Your task to perform on an android device: What's the weather? Image 0: 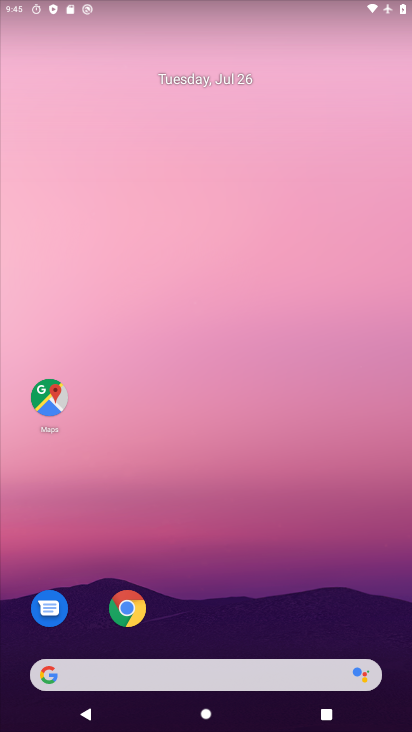
Step 0: drag from (203, 605) to (181, 24)
Your task to perform on an android device: What's the weather? Image 1: 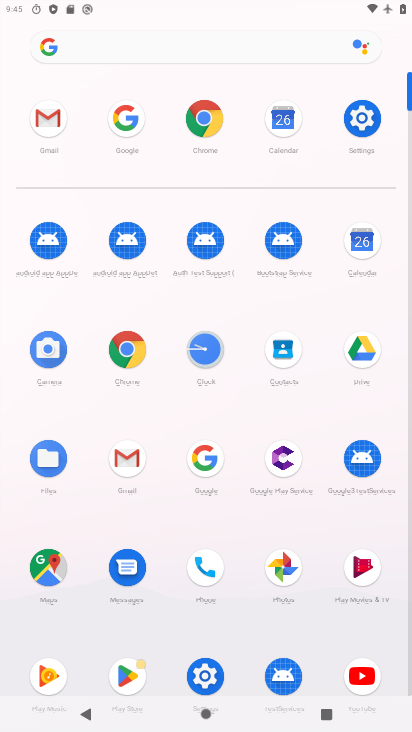
Step 1: click (199, 459)
Your task to perform on an android device: What's the weather? Image 2: 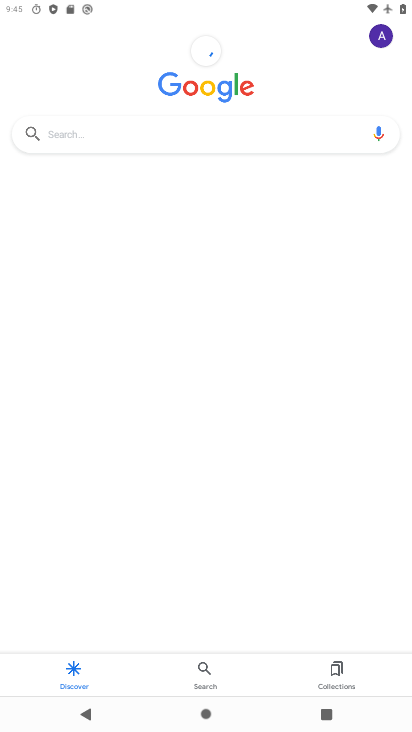
Step 2: click (134, 130)
Your task to perform on an android device: What's the weather? Image 3: 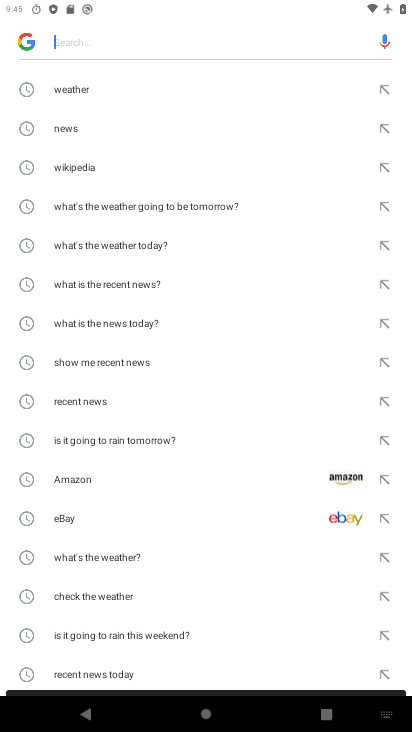
Step 3: click (123, 101)
Your task to perform on an android device: What's the weather? Image 4: 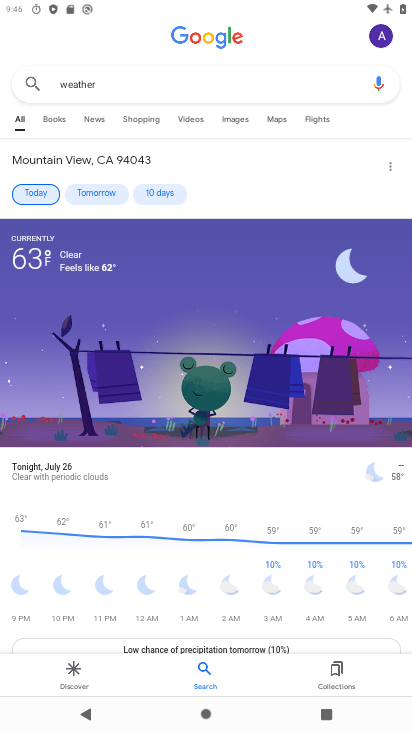
Step 4: task complete